Your task to perform on an android device: toggle priority inbox in the gmail app Image 0: 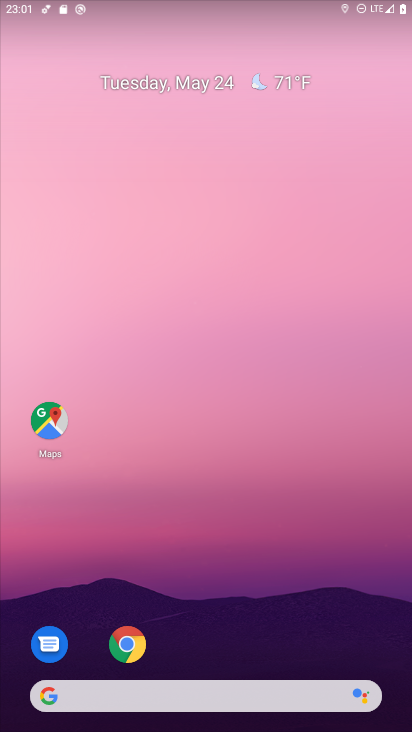
Step 0: drag from (184, 589) to (138, 145)
Your task to perform on an android device: toggle priority inbox in the gmail app Image 1: 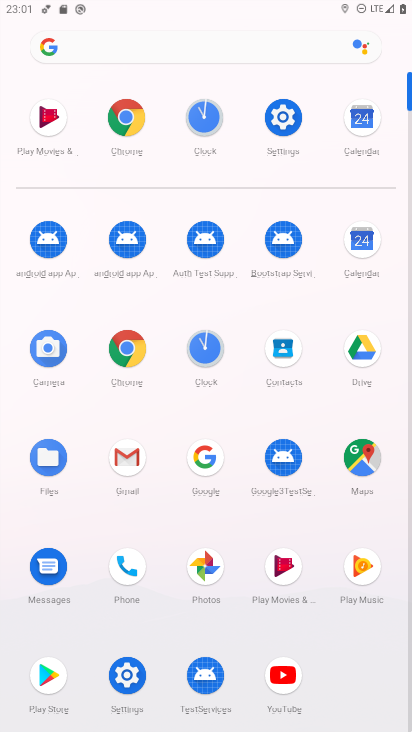
Step 1: click (122, 465)
Your task to perform on an android device: toggle priority inbox in the gmail app Image 2: 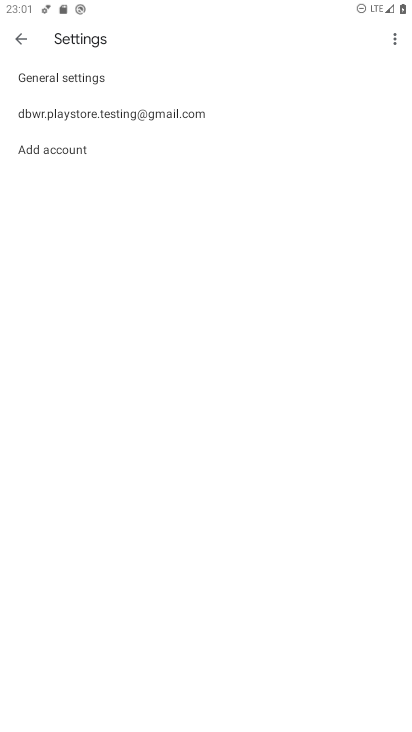
Step 2: click (58, 106)
Your task to perform on an android device: toggle priority inbox in the gmail app Image 3: 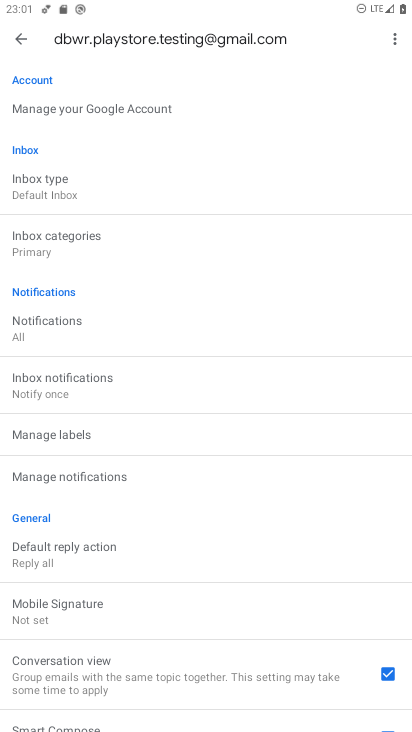
Step 3: click (34, 177)
Your task to perform on an android device: toggle priority inbox in the gmail app Image 4: 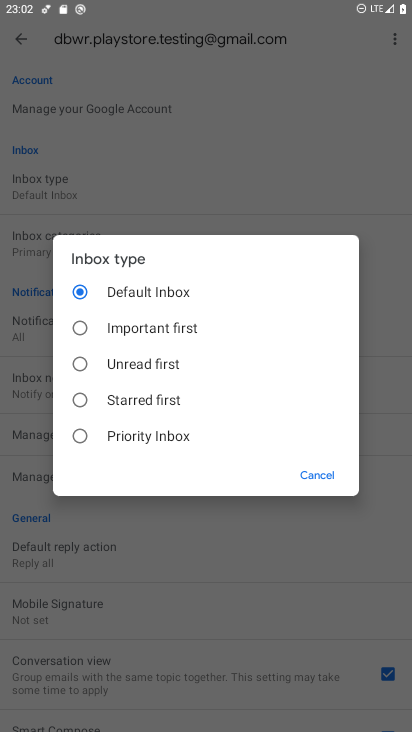
Step 4: click (80, 430)
Your task to perform on an android device: toggle priority inbox in the gmail app Image 5: 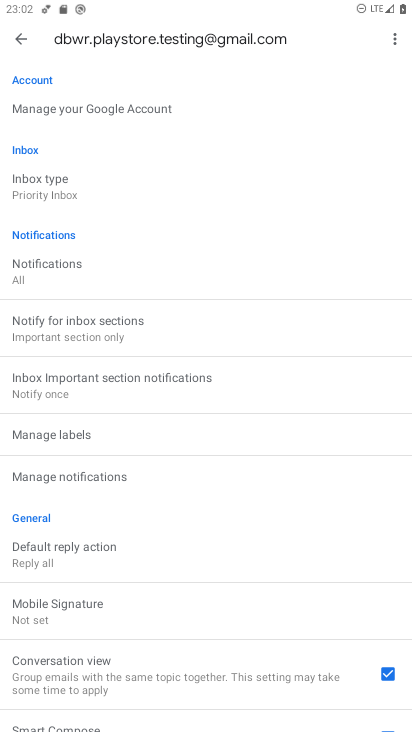
Step 5: task complete